Your task to perform on an android device: Search for seafood restaurants on Google Maps Image 0: 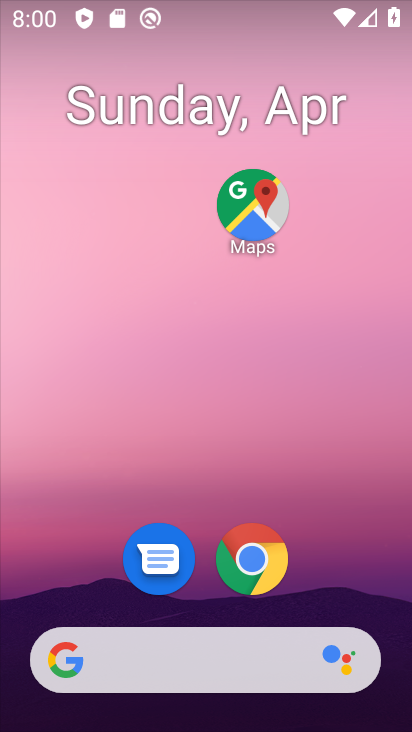
Step 0: click (233, 207)
Your task to perform on an android device: Search for seafood restaurants on Google Maps Image 1: 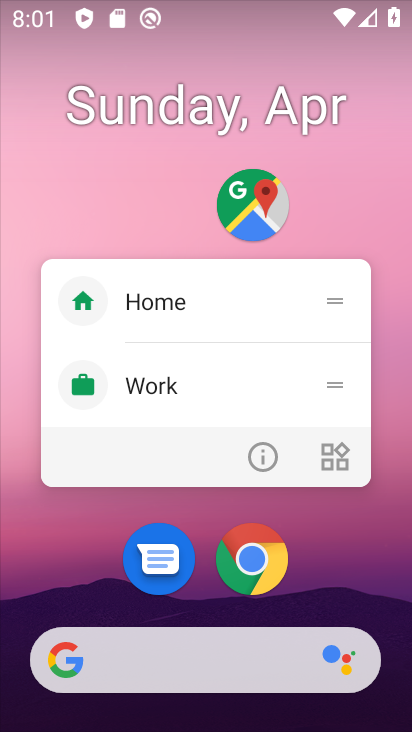
Step 1: click (257, 465)
Your task to perform on an android device: Search for seafood restaurants on Google Maps Image 2: 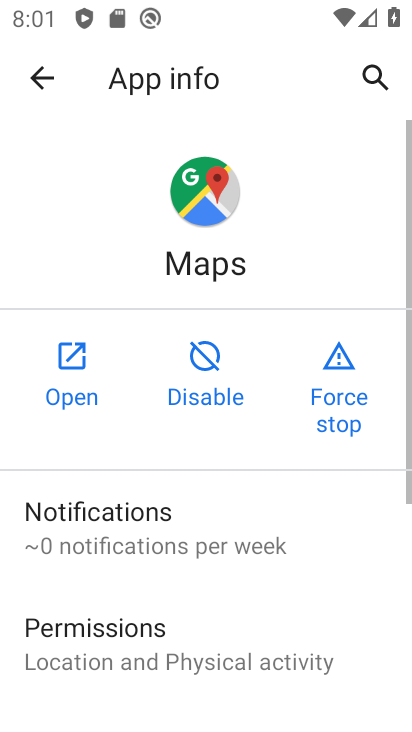
Step 2: click (79, 369)
Your task to perform on an android device: Search for seafood restaurants on Google Maps Image 3: 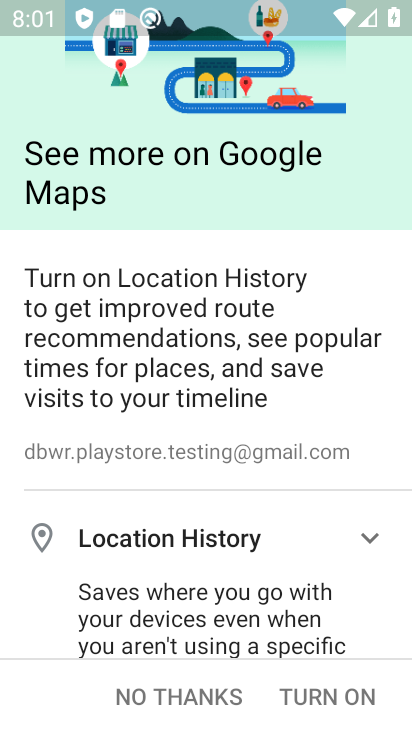
Step 3: click (202, 702)
Your task to perform on an android device: Search for seafood restaurants on Google Maps Image 4: 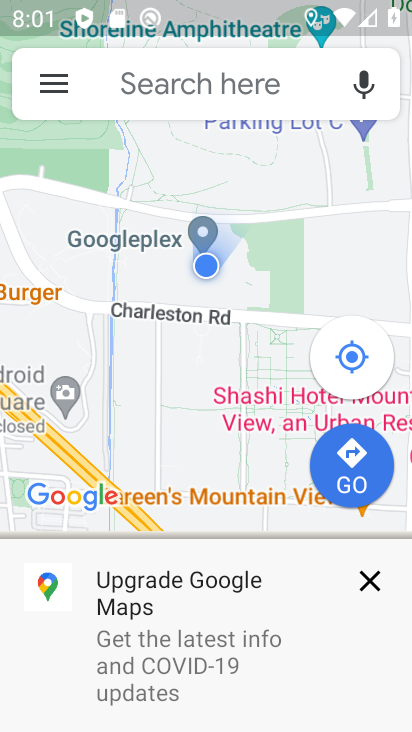
Step 4: click (224, 67)
Your task to perform on an android device: Search for seafood restaurants on Google Maps Image 5: 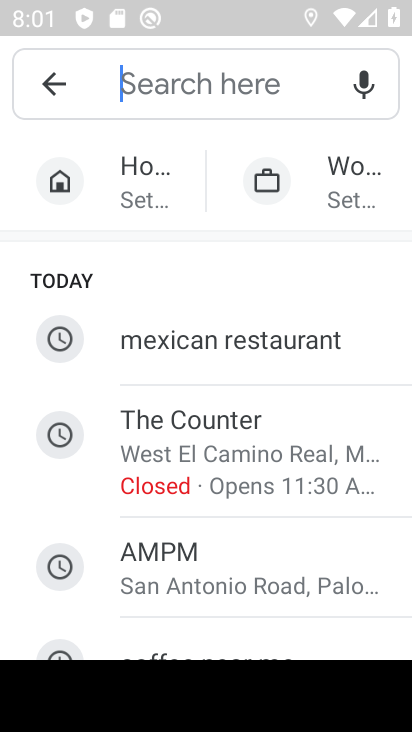
Step 5: drag from (215, 543) to (284, 233)
Your task to perform on an android device: Search for seafood restaurants on Google Maps Image 6: 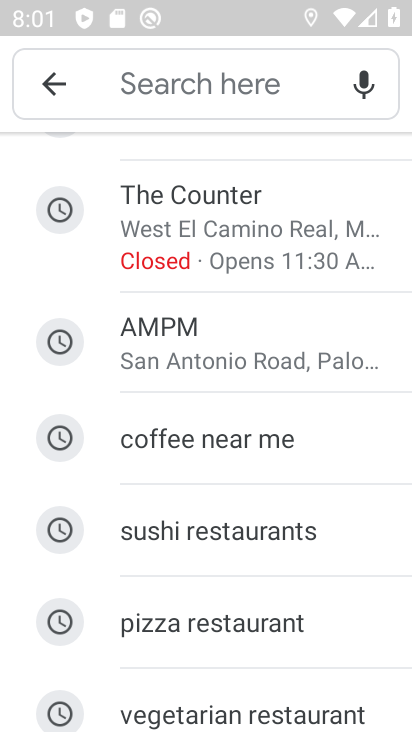
Step 6: drag from (213, 707) to (322, 304)
Your task to perform on an android device: Search for seafood restaurants on Google Maps Image 7: 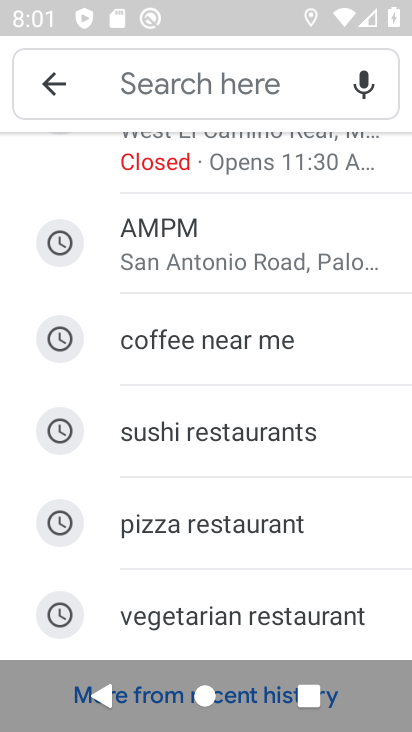
Step 7: drag from (168, 597) to (282, 237)
Your task to perform on an android device: Search for seafood restaurants on Google Maps Image 8: 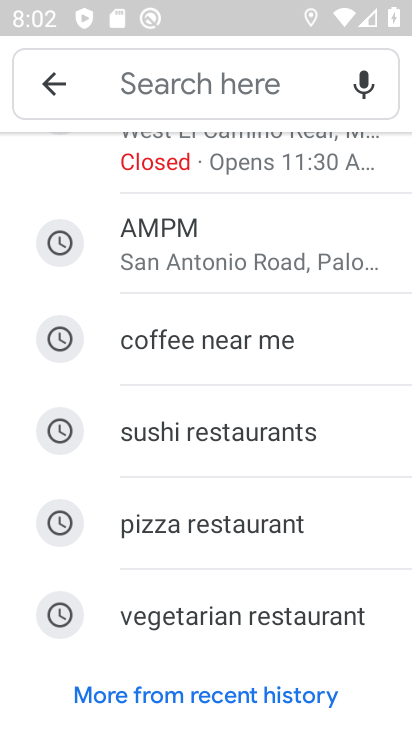
Step 8: click (195, 70)
Your task to perform on an android device: Search for seafood restaurants on Google Maps Image 9: 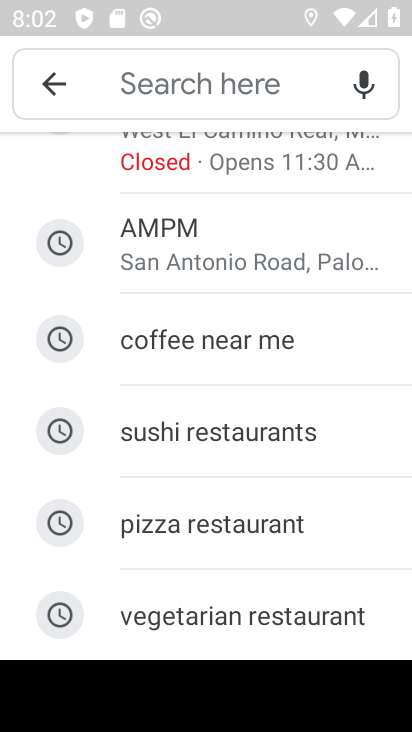
Step 9: type " seafood restaurants"
Your task to perform on an android device: Search for seafood restaurants on Google Maps Image 10: 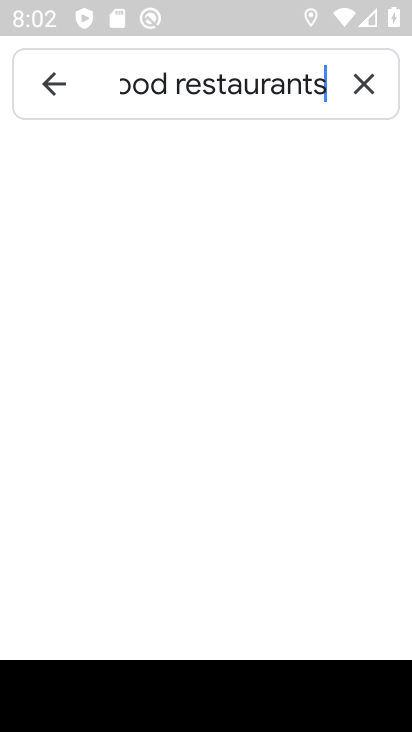
Step 10: type ""
Your task to perform on an android device: Search for seafood restaurants on Google Maps Image 11: 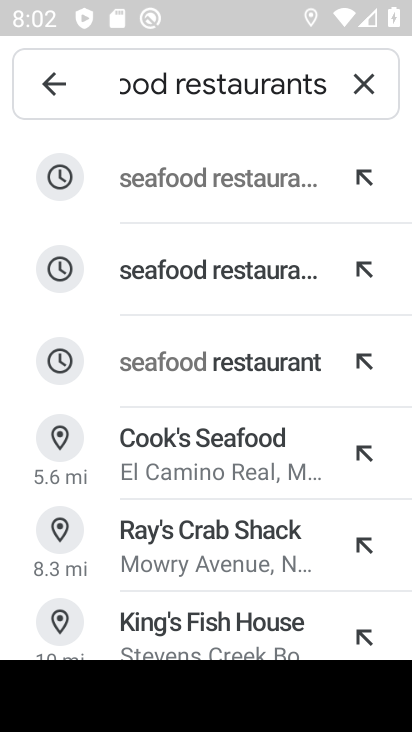
Step 11: click (213, 181)
Your task to perform on an android device: Search for seafood restaurants on Google Maps Image 12: 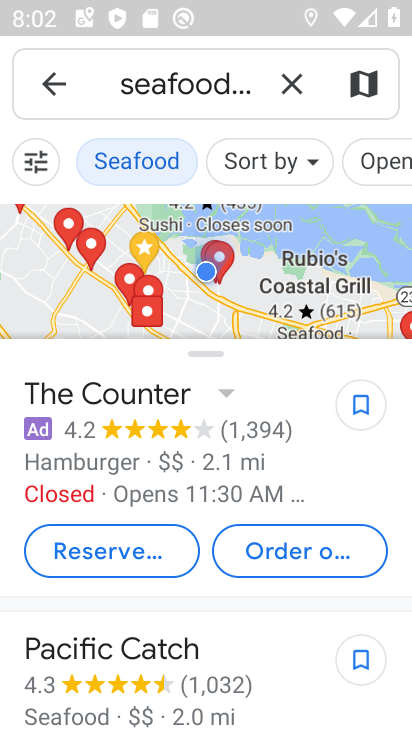
Step 12: task complete